Your task to perform on an android device: Search for "amazon basics triple a" on walmart.com, select the first entry, add it to the cart, then select checkout. Image 0: 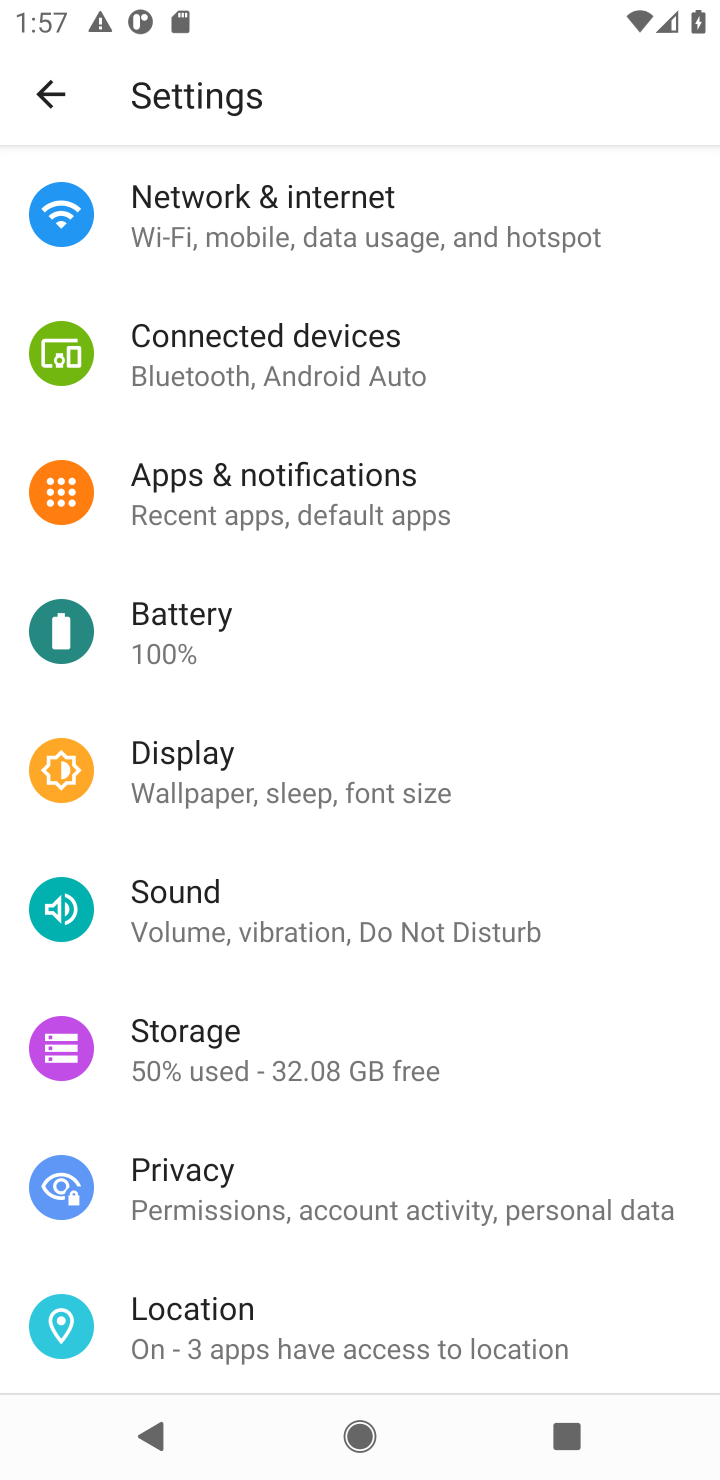
Step 0: press home button
Your task to perform on an android device: Search for "amazon basics triple a" on walmart.com, select the first entry, add it to the cart, then select checkout. Image 1: 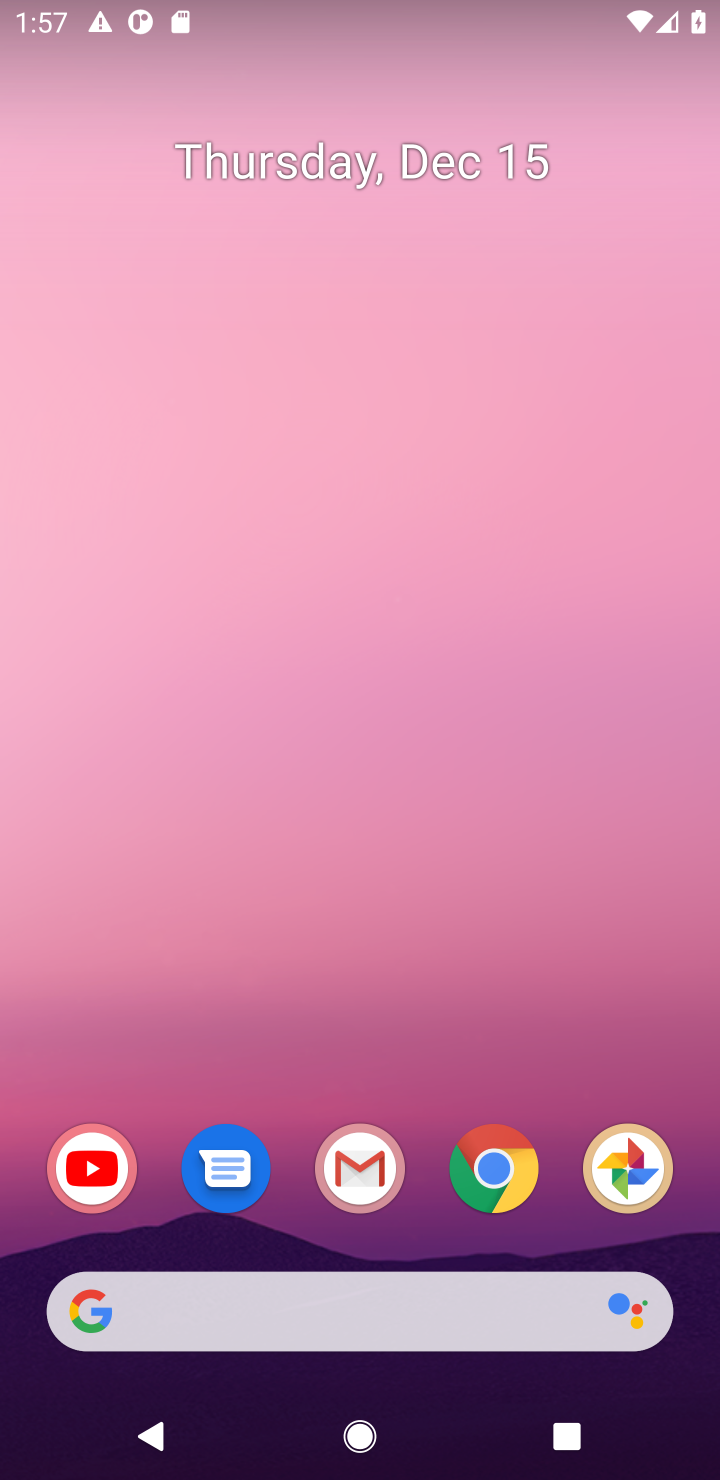
Step 1: click (497, 1179)
Your task to perform on an android device: Search for "amazon basics triple a" on walmart.com, select the first entry, add it to the cart, then select checkout. Image 2: 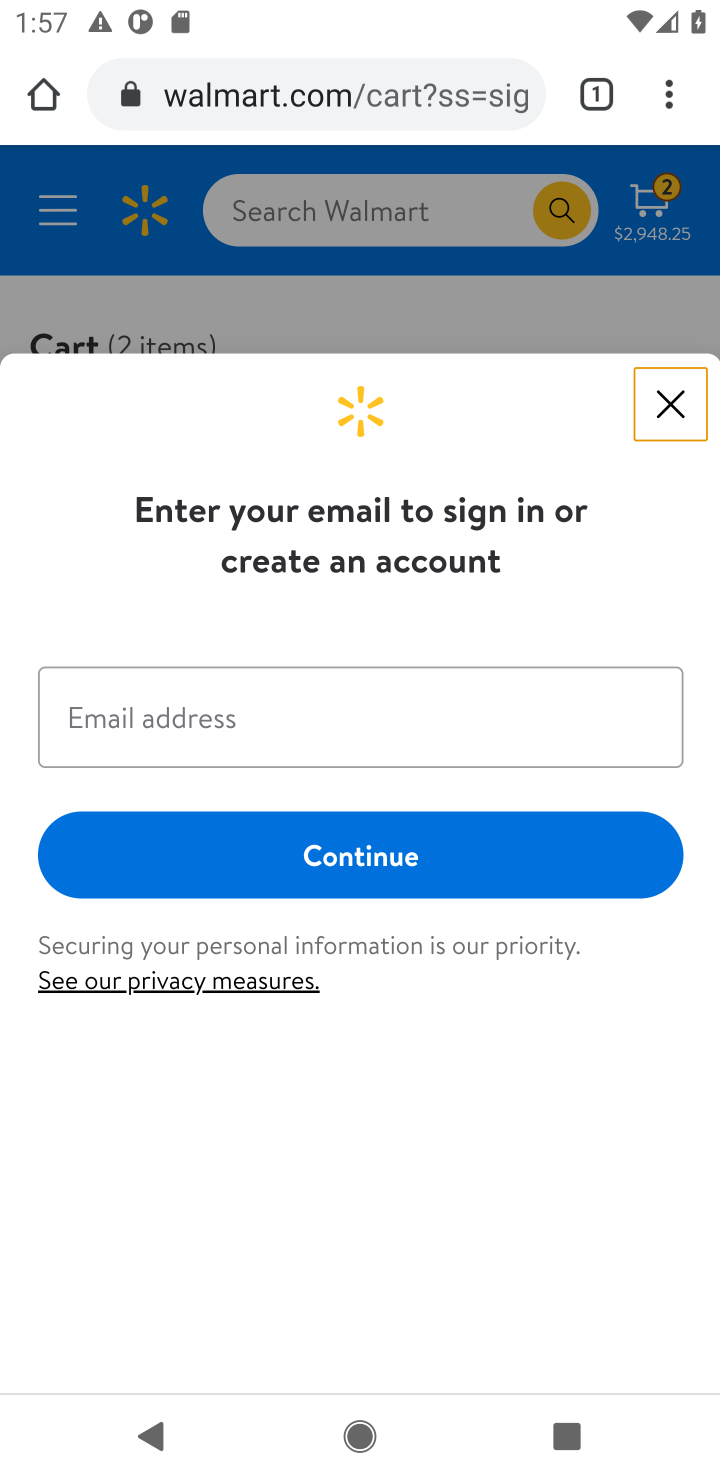
Step 2: click (682, 408)
Your task to perform on an android device: Search for "amazon basics triple a" on walmart.com, select the first entry, add it to the cart, then select checkout. Image 3: 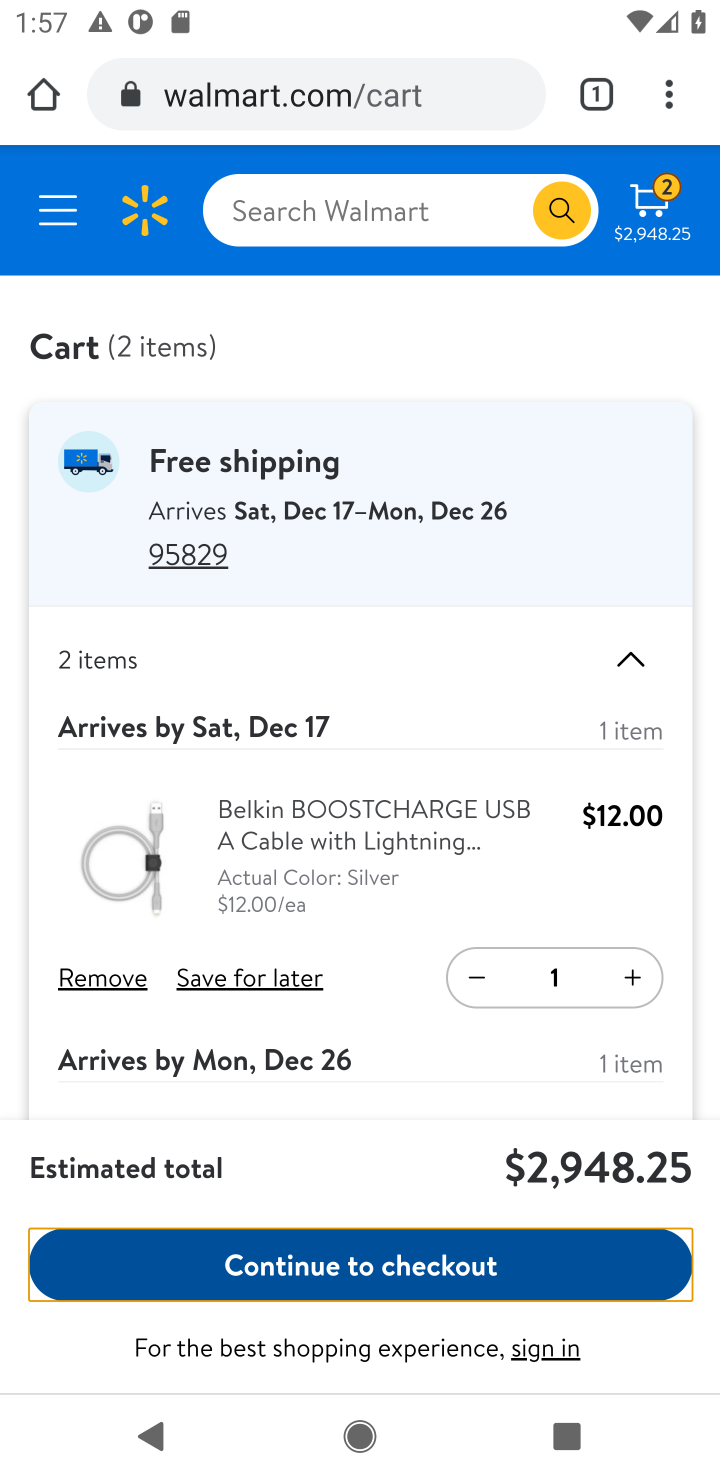
Step 3: click (498, 185)
Your task to perform on an android device: Search for "amazon basics triple a" on walmart.com, select the first entry, add it to the cart, then select checkout. Image 4: 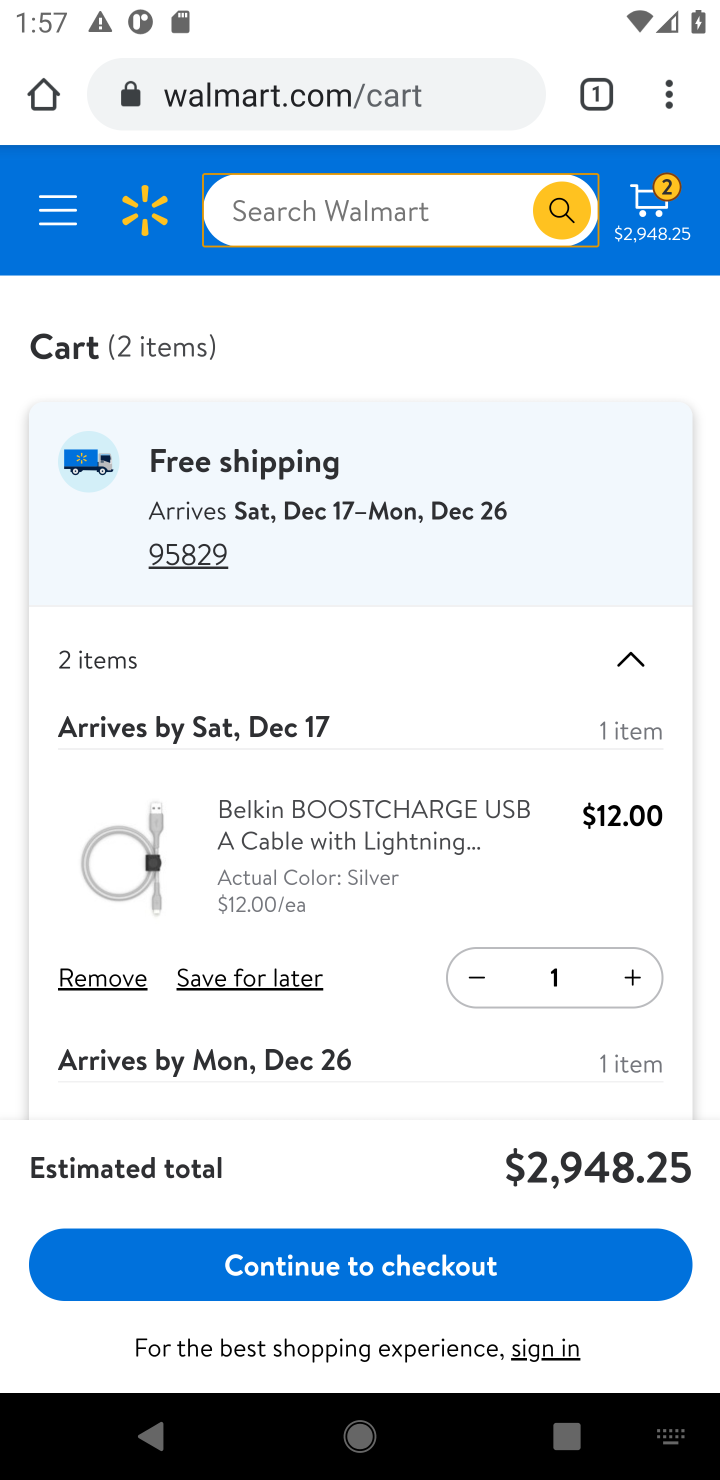
Step 4: press enter
Your task to perform on an android device: Search for "amazon basics triple a" on walmart.com, select the first entry, add it to the cart, then select checkout. Image 5: 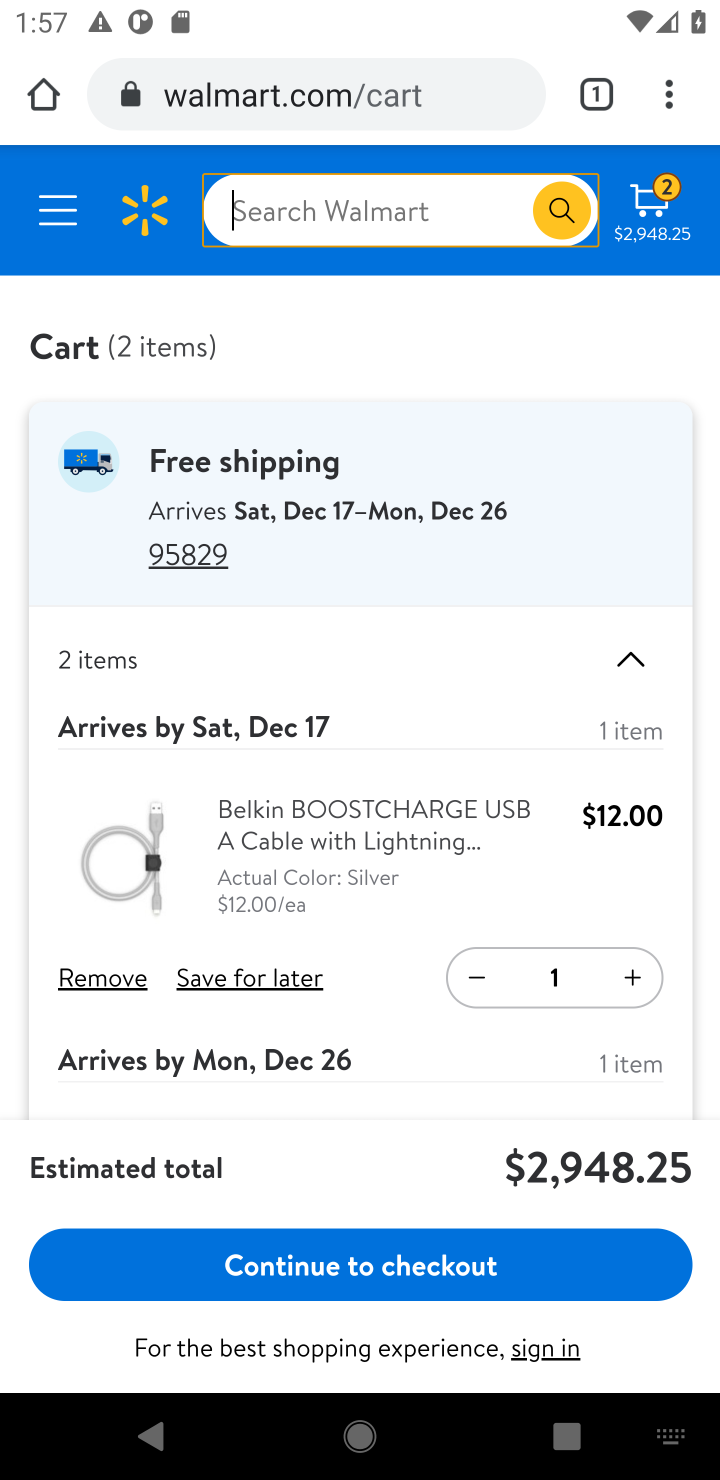
Step 5: type "amazon basics triple a"
Your task to perform on an android device: Search for "amazon basics triple a" on walmart.com, select the first entry, add it to the cart, then select checkout. Image 6: 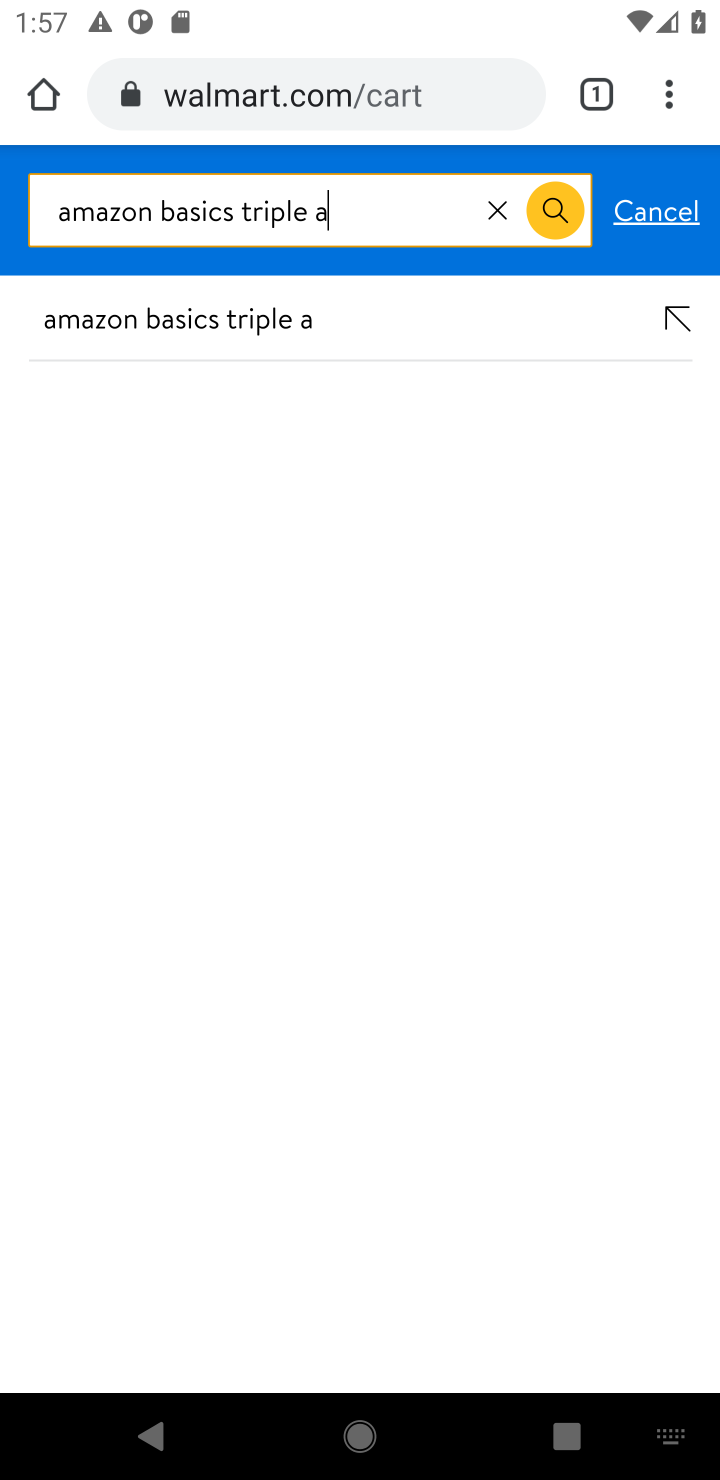
Step 6: click (202, 323)
Your task to perform on an android device: Search for "amazon basics triple a" on walmart.com, select the first entry, add it to the cart, then select checkout. Image 7: 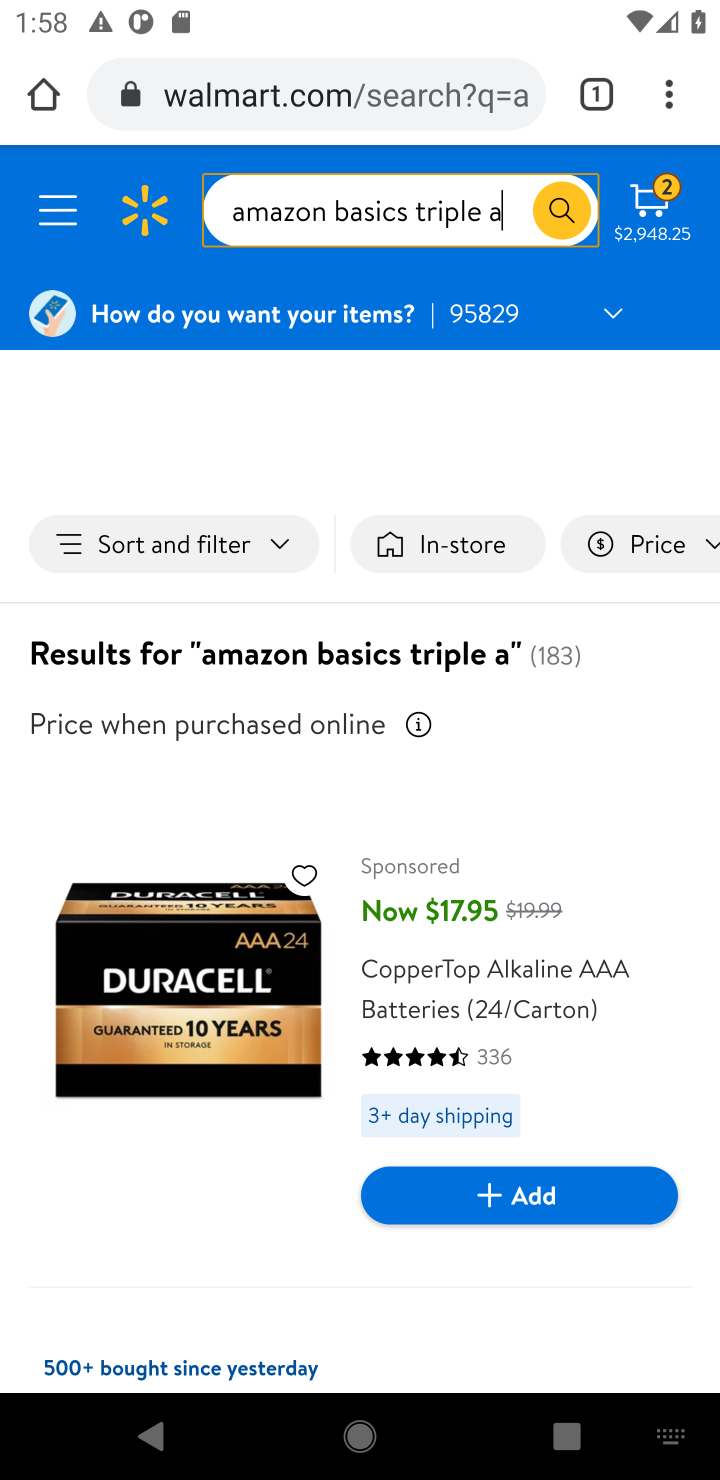
Step 7: task complete